Your task to perform on an android device: toggle translation in the chrome app Image 0: 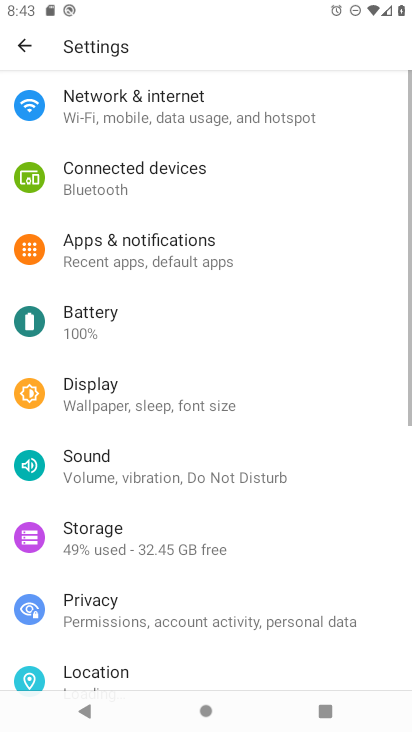
Step 0: press home button
Your task to perform on an android device: toggle translation in the chrome app Image 1: 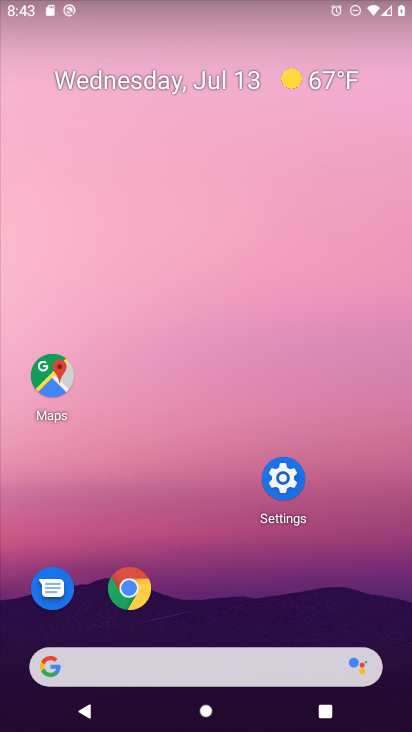
Step 1: click (135, 581)
Your task to perform on an android device: toggle translation in the chrome app Image 2: 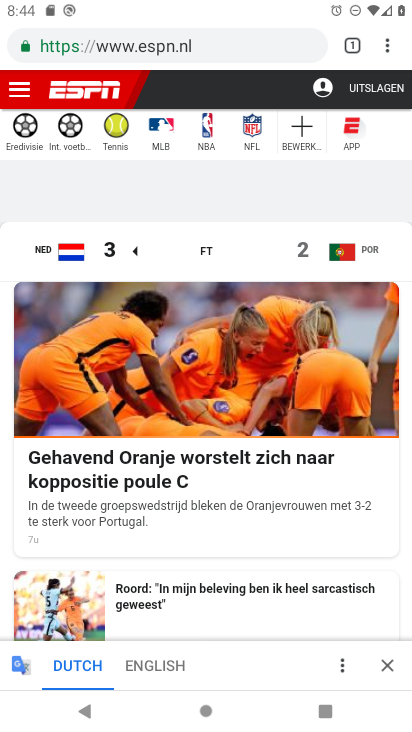
Step 2: click (381, 57)
Your task to perform on an android device: toggle translation in the chrome app Image 3: 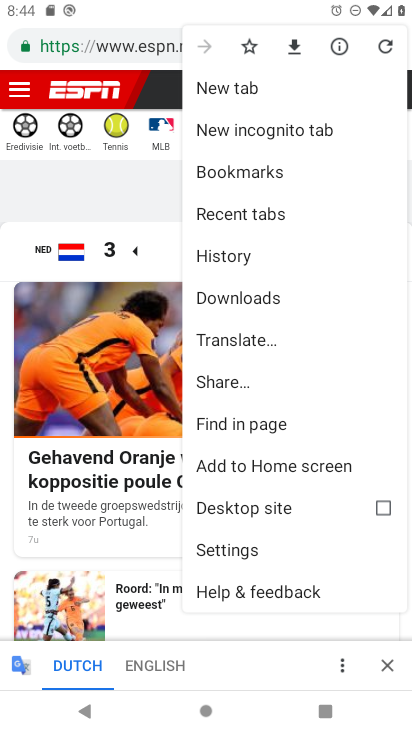
Step 3: click (230, 553)
Your task to perform on an android device: toggle translation in the chrome app Image 4: 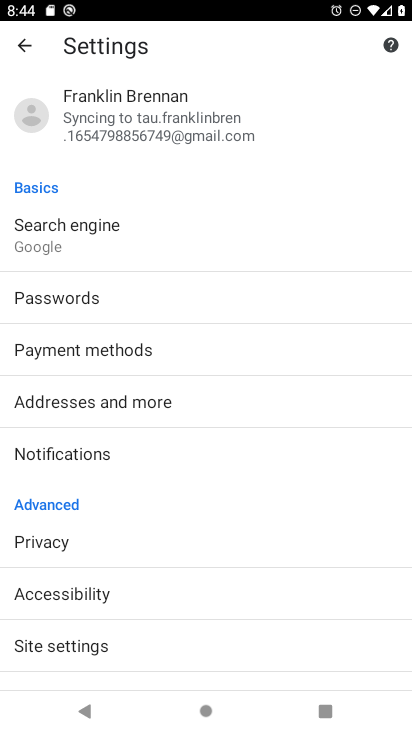
Step 4: drag from (69, 644) to (127, 511)
Your task to perform on an android device: toggle translation in the chrome app Image 5: 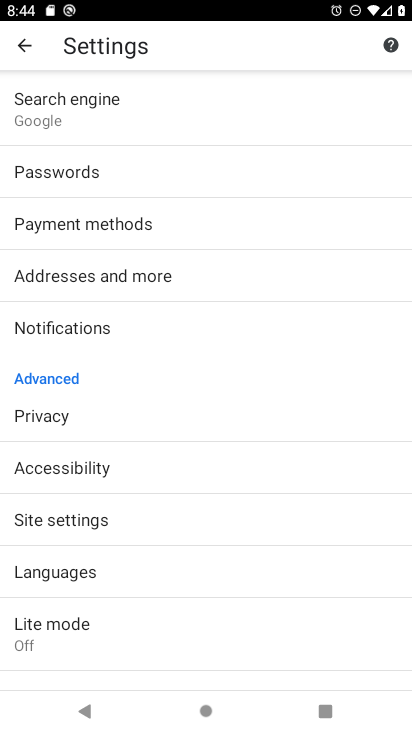
Step 5: click (79, 580)
Your task to perform on an android device: toggle translation in the chrome app Image 6: 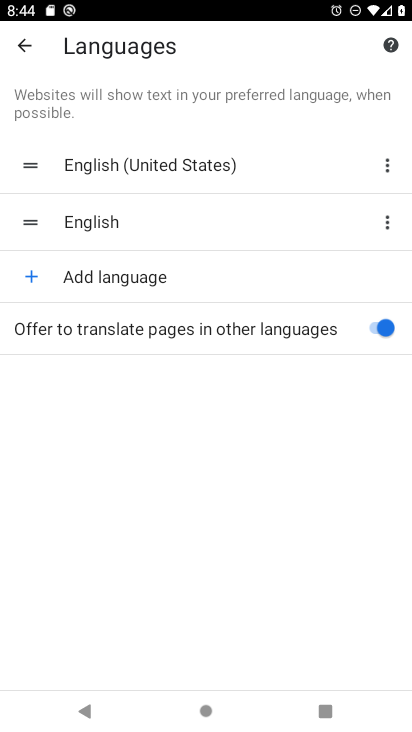
Step 6: click (377, 342)
Your task to perform on an android device: toggle translation in the chrome app Image 7: 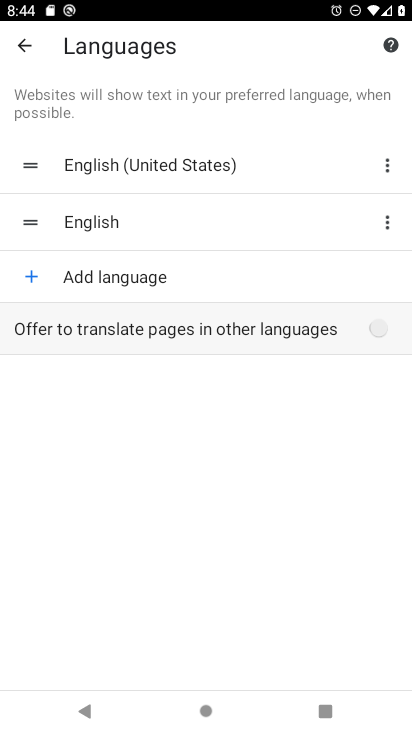
Step 7: click (377, 342)
Your task to perform on an android device: toggle translation in the chrome app Image 8: 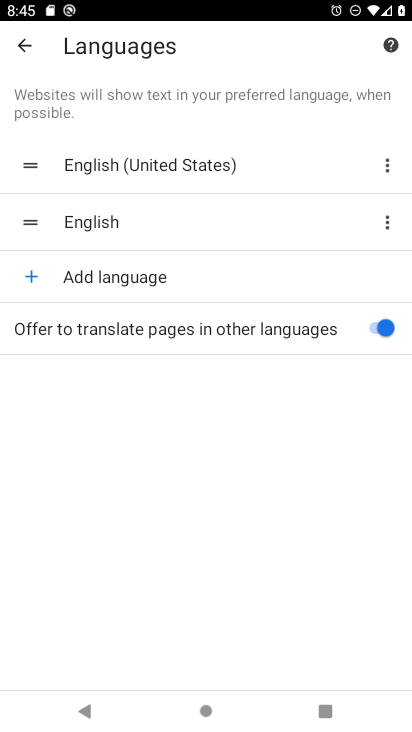
Step 8: task complete